Your task to perform on an android device: all mails in gmail Image 0: 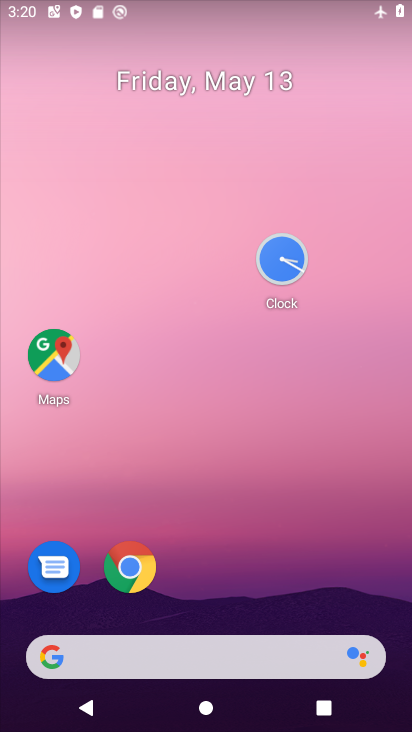
Step 0: drag from (316, 577) to (364, 276)
Your task to perform on an android device: all mails in gmail Image 1: 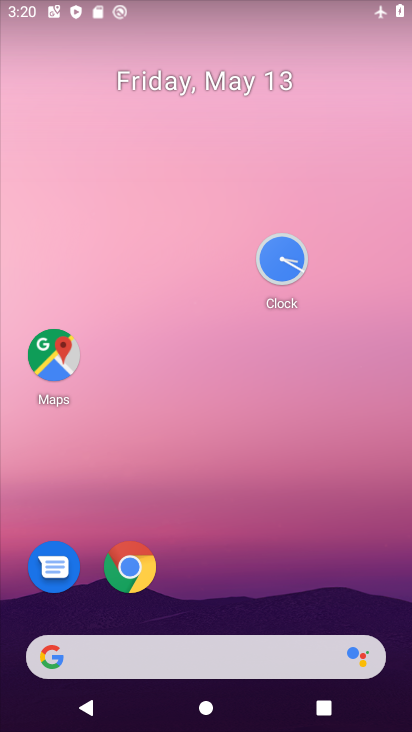
Step 1: drag from (246, 567) to (313, 185)
Your task to perform on an android device: all mails in gmail Image 2: 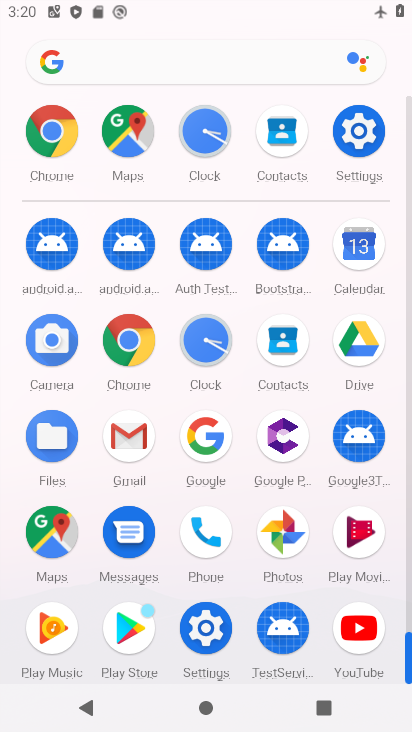
Step 2: drag from (358, 142) to (219, 157)
Your task to perform on an android device: all mails in gmail Image 3: 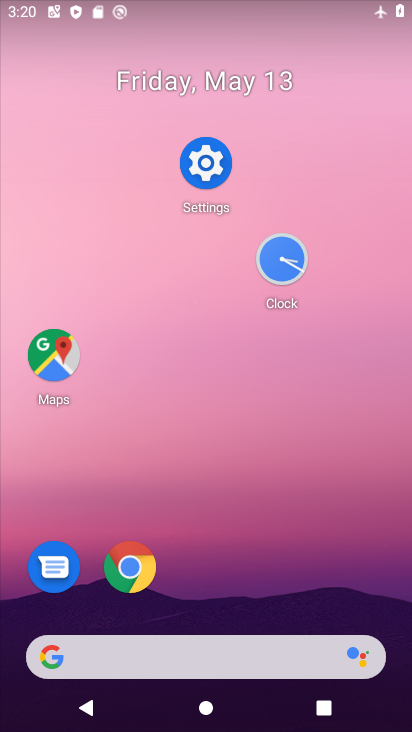
Step 3: drag from (227, 490) to (271, 61)
Your task to perform on an android device: all mails in gmail Image 4: 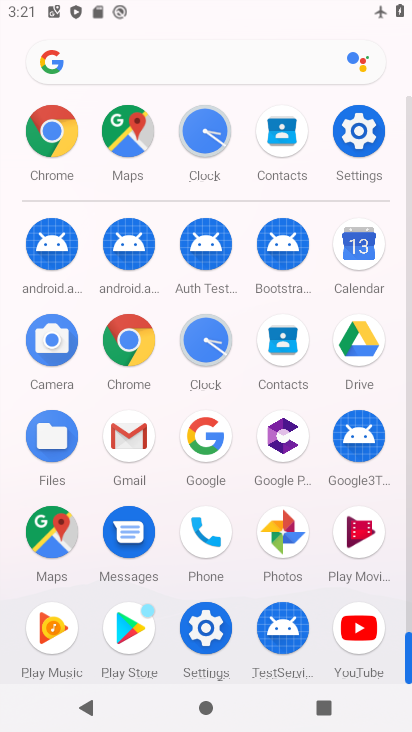
Step 4: click (112, 442)
Your task to perform on an android device: all mails in gmail Image 5: 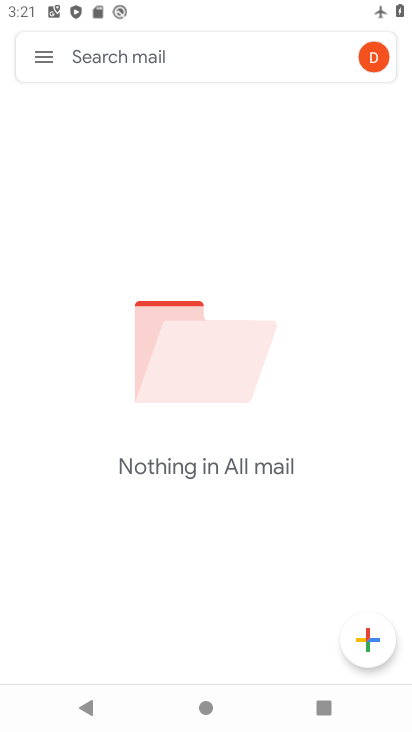
Step 5: click (62, 56)
Your task to perform on an android device: all mails in gmail Image 6: 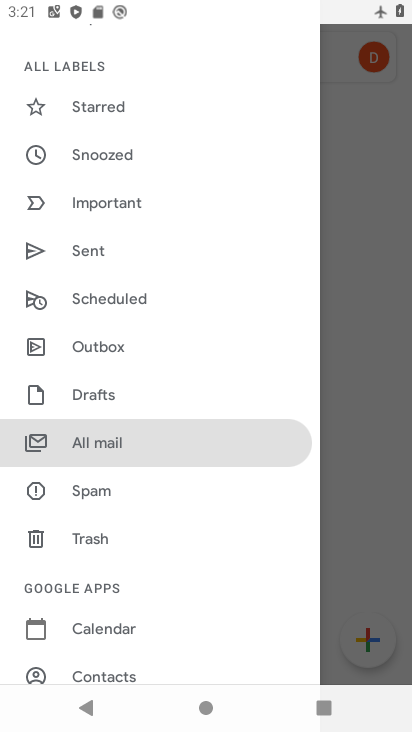
Step 6: click (130, 460)
Your task to perform on an android device: all mails in gmail Image 7: 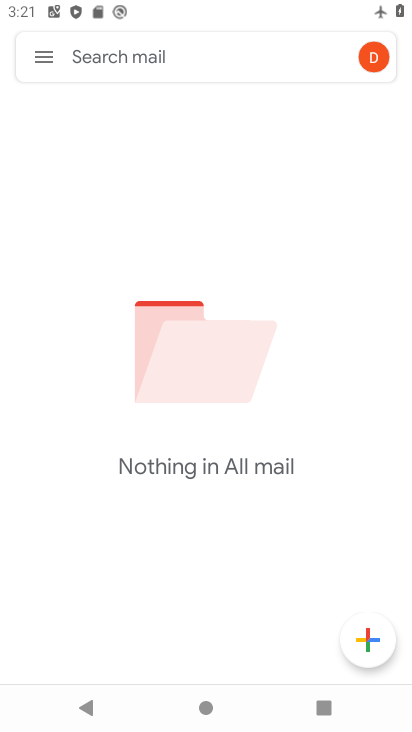
Step 7: task complete